Your task to perform on an android device: open a new tab in the chrome app Image 0: 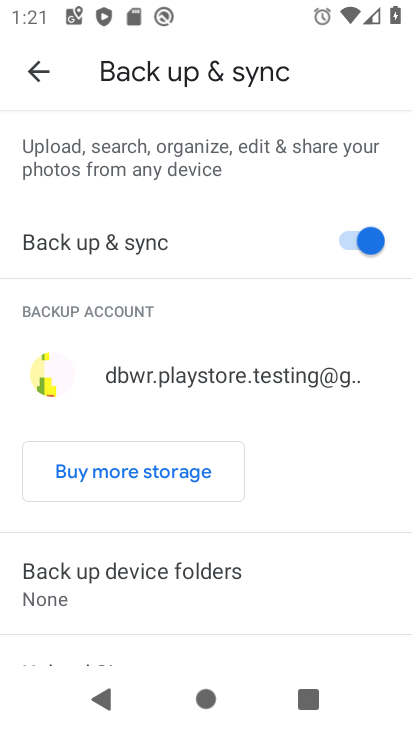
Step 0: press home button
Your task to perform on an android device: open a new tab in the chrome app Image 1: 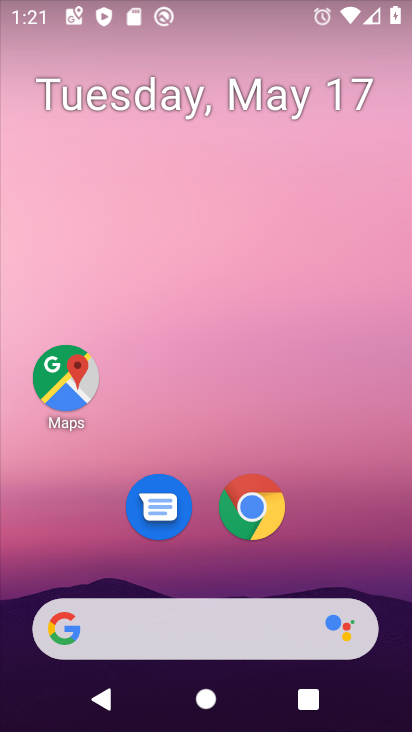
Step 1: click (264, 502)
Your task to perform on an android device: open a new tab in the chrome app Image 2: 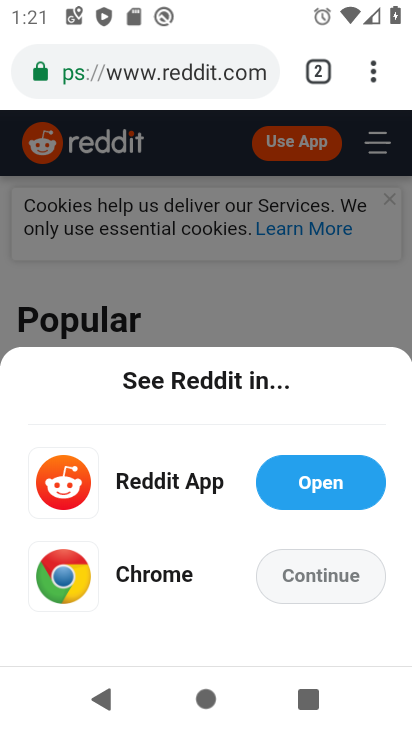
Step 2: click (380, 54)
Your task to perform on an android device: open a new tab in the chrome app Image 3: 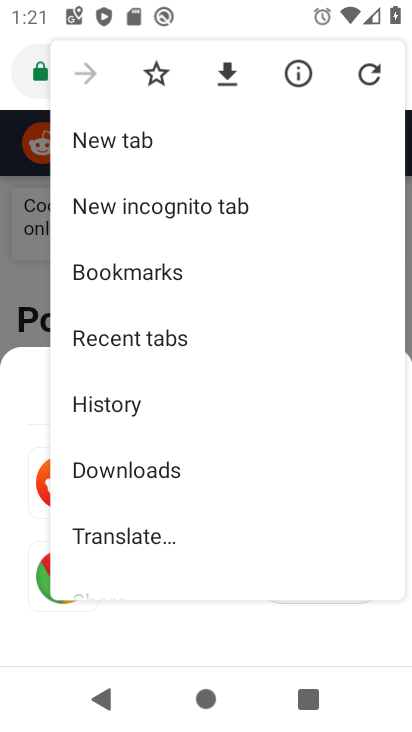
Step 3: click (164, 136)
Your task to perform on an android device: open a new tab in the chrome app Image 4: 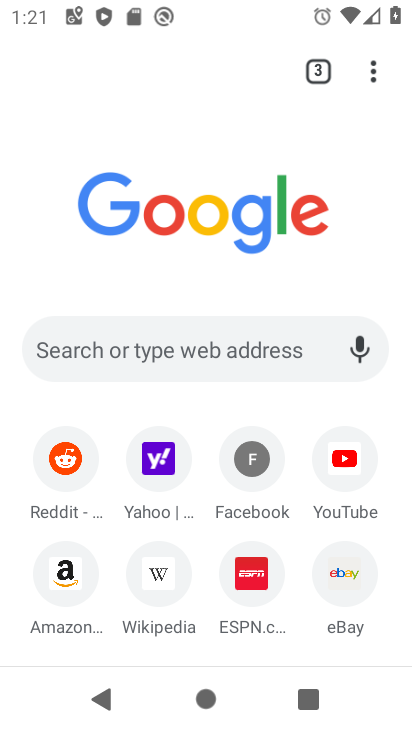
Step 4: task complete